Your task to perform on an android device: allow notifications from all sites in the chrome app Image 0: 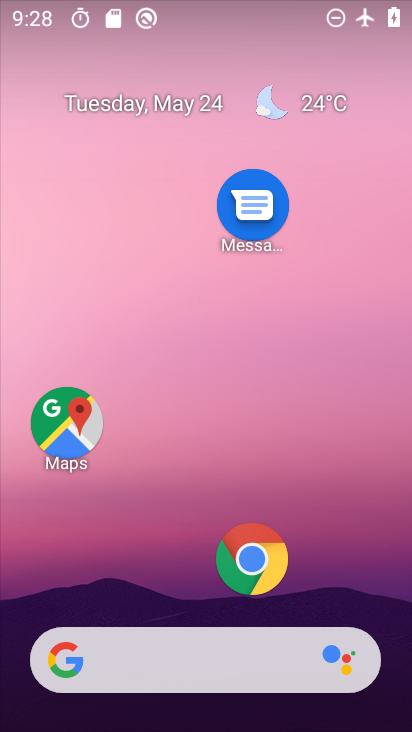
Step 0: click (238, 582)
Your task to perform on an android device: allow notifications from all sites in the chrome app Image 1: 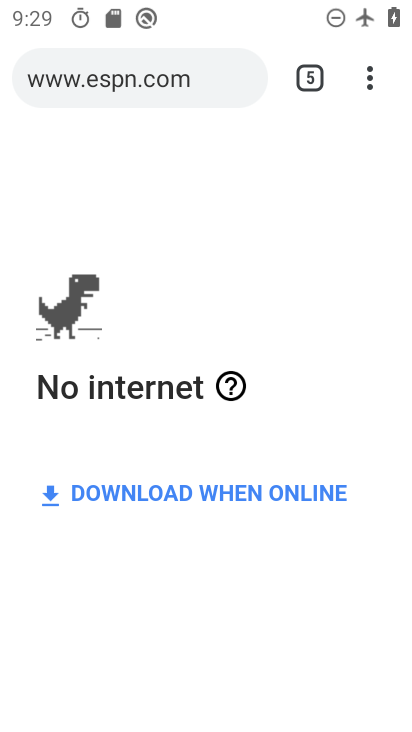
Step 1: drag from (363, 76) to (93, 613)
Your task to perform on an android device: allow notifications from all sites in the chrome app Image 2: 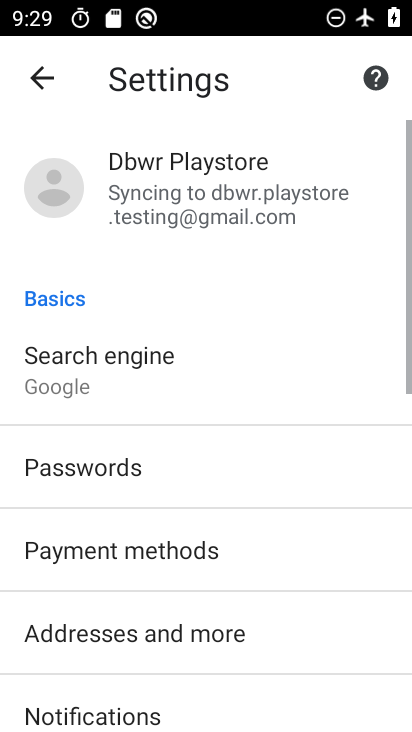
Step 2: drag from (164, 612) to (291, 337)
Your task to perform on an android device: allow notifications from all sites in the chrome app Image 3: 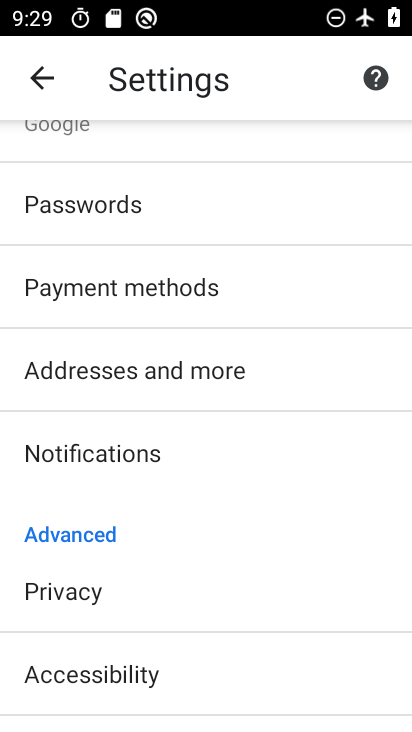
Step 3: drag from (141, 656) to (194, 465)
Your task to perform on an android device: allow notifications from all sites in the chrome app Image 4: 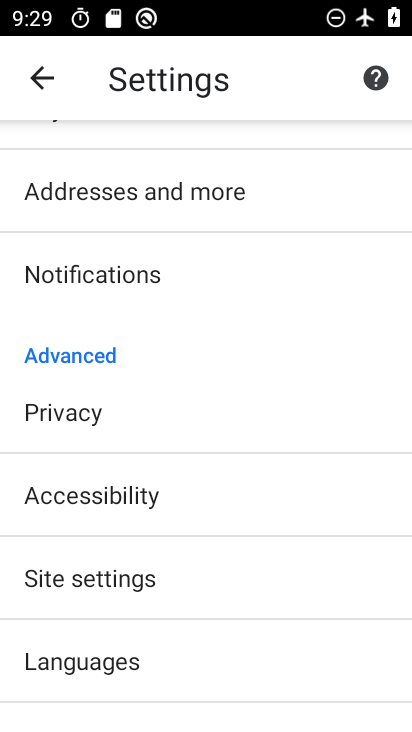
Step 4: click (166, 560)
Your task to perform on an android device: allow notifications from all sites in the chrome app Image 5: 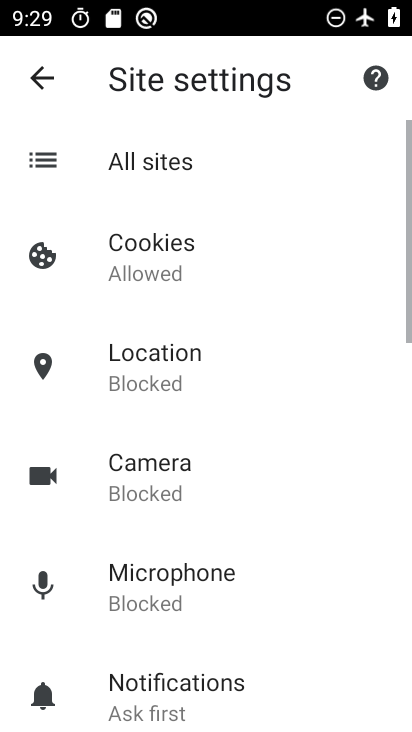
Step 5: click (151, 166)
Your task to perform on an android device: allow notifications from all sites in the chrome app Image 6: 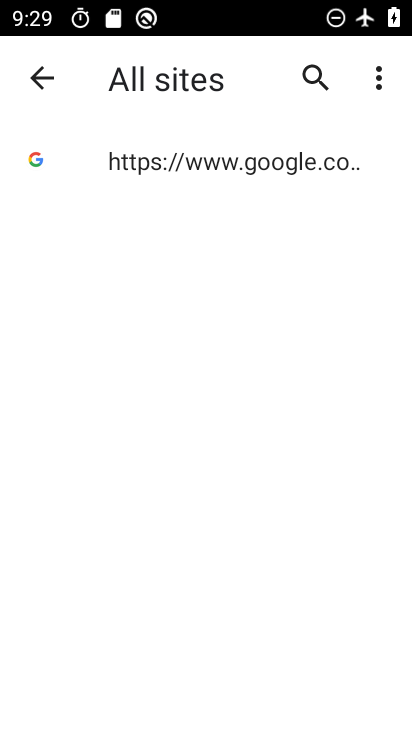
Step 6: click (151, 166)
Your task to perform on an android device: allow notifications from all sites in the chrome app Image 7: 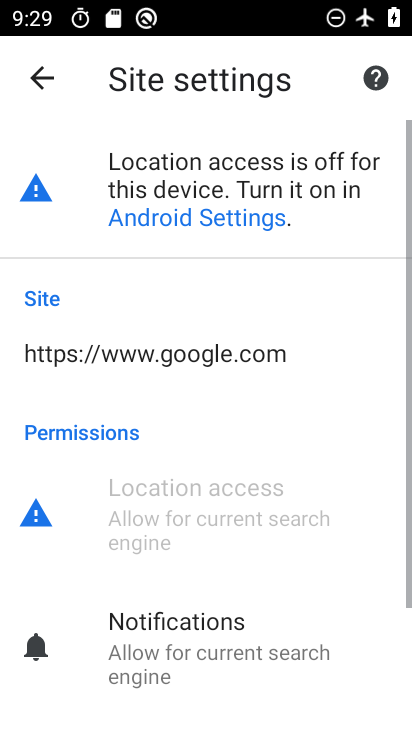
Step 7: drag from (183, 587) to (212, 373)
Your task to perform on an android device: allow notifications from all sites in the chrome app Image 8: 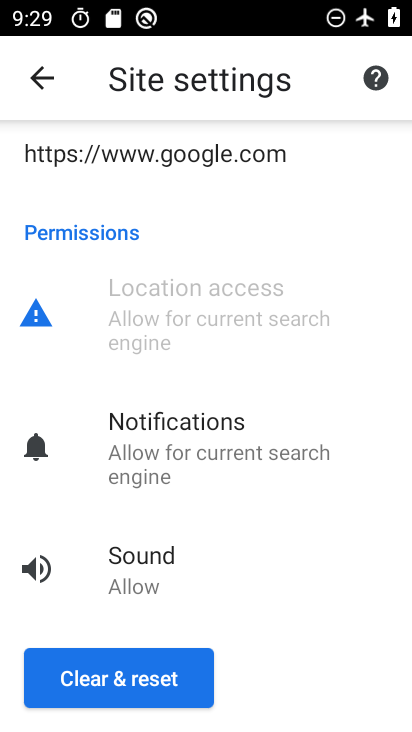
Step 8: click (202, 443)
Your task to perform on an android device: allow notifications from all sites in the chrome app Image 9: 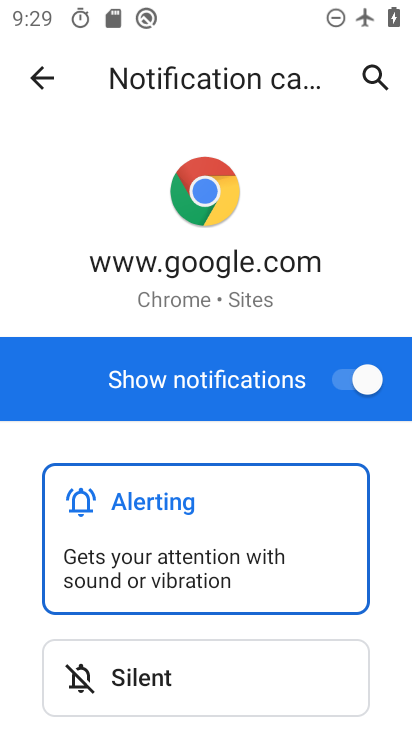
Step 9: task complete